Your task to perform on an android device: change the clock display to digital Image 0: 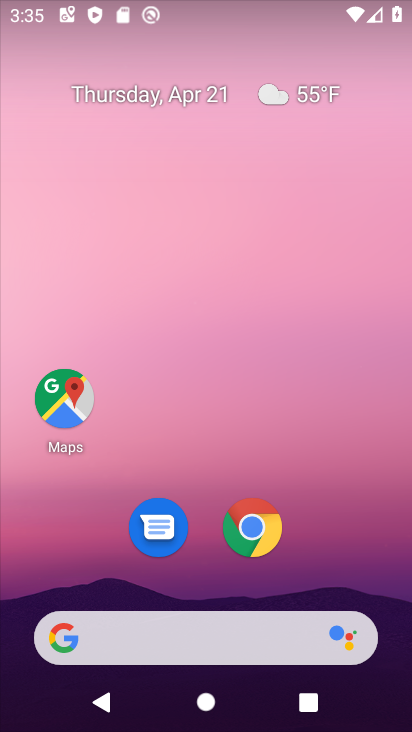
Step 0: drag from (392, 581) to (283, 136)
Your task to perform on an android device: change the clock display to digital Image 1: 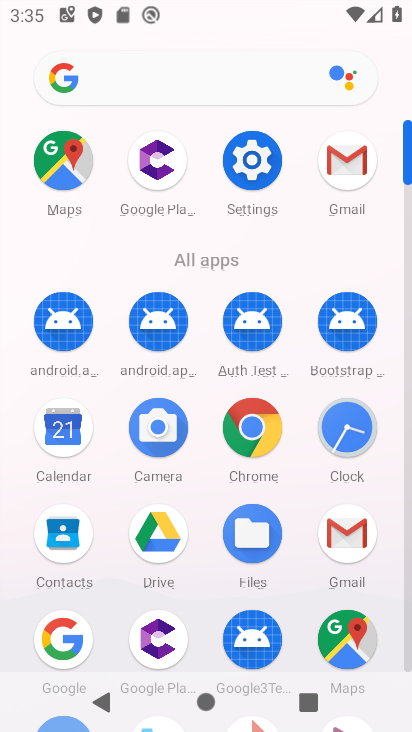
Step 1: click (357, 437)
Your task to perform on an android device: change the clock display to digital Image 2: 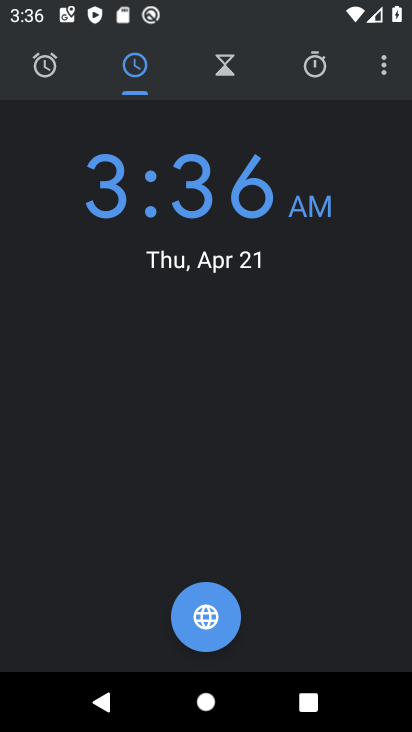
Step 2: click (385, 63)
Your task to perform on an android device: change the clock display to digital Image 3: 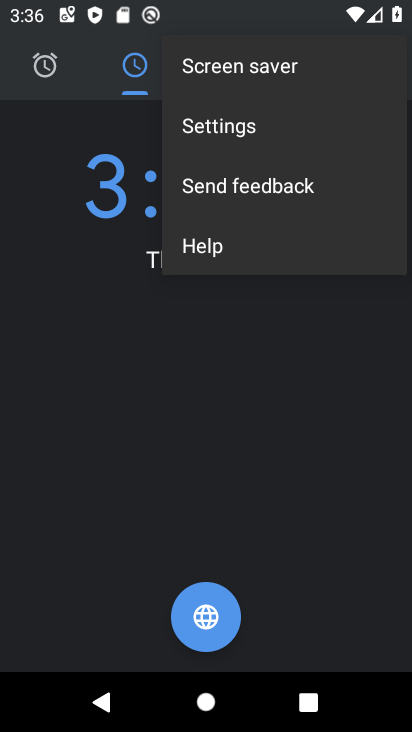
Step 3: click (324, 128)
Your task to perform on an android device: change the clock display to digital Image 4: 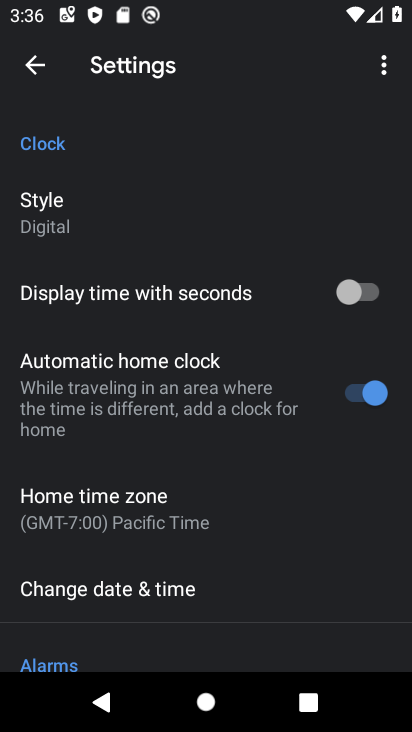
Step 4: task complete